Your task to perform on an android device: change timer sound Image 0: 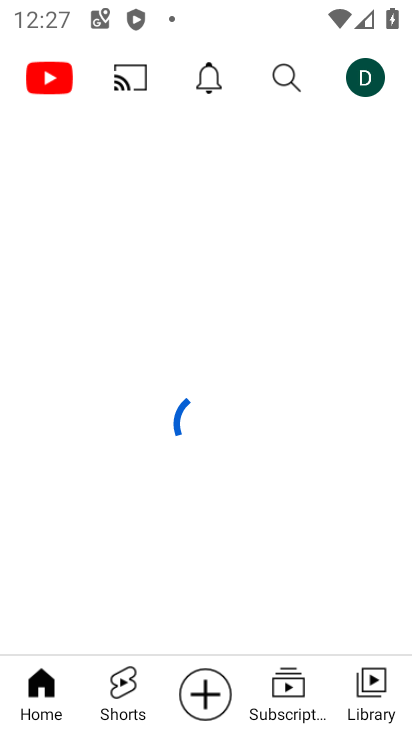
Step 0: drag from (300, 536) to (295, 364)
Your task to perform on an android device: change timer sound Image 1: 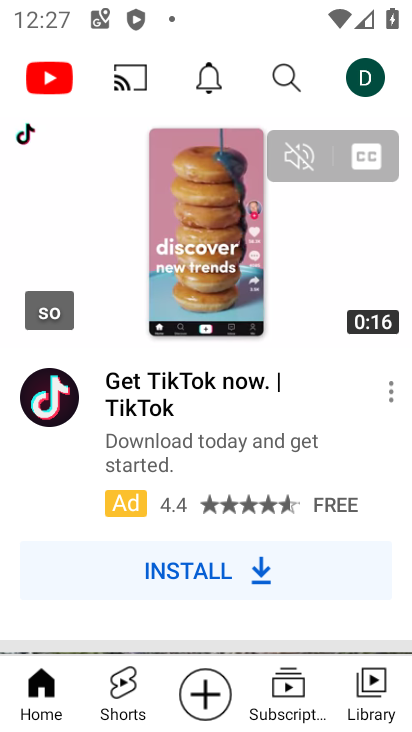
Step 1: press home button
Your task to perform on an android device: change timer sound Image 2: 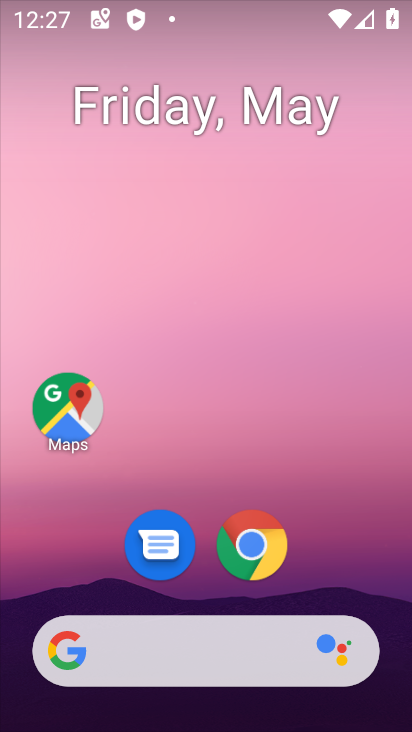
Step 2: drag from (345, 508) to (338, 162)
Your task to perform on an android device: change timer sound Image 3: 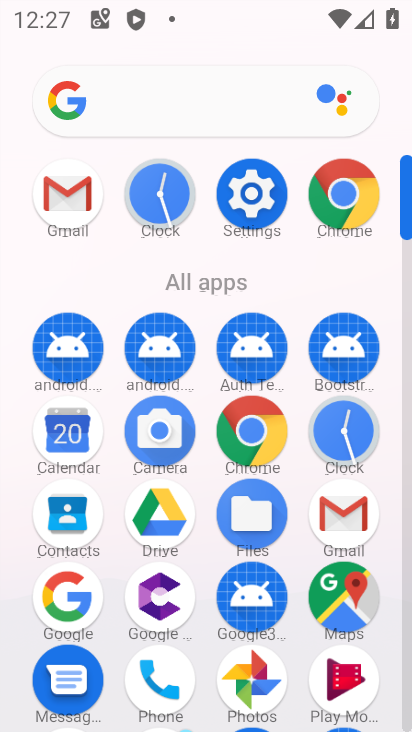
Step 3: click (164, 196)
Your task to perform on an android device: change timer sound Image 4: 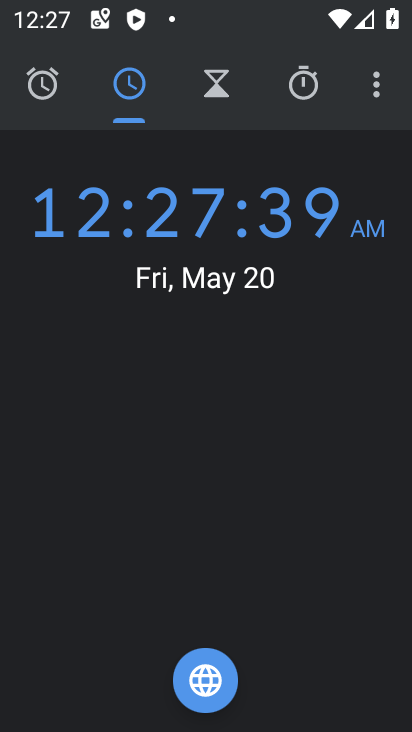
Step 4: click (373, 95)
Your task to perform on an android device: change timer sound Image 5: 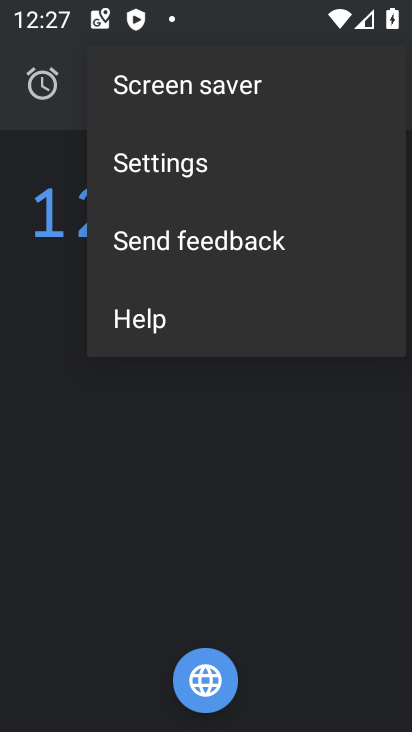
Step 5: click (313, 165)
Your task to perform on an android device: change timer sound Image 6: 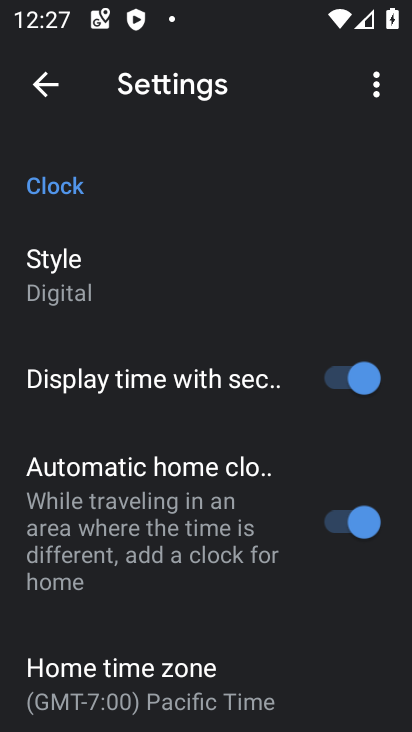
Step 6: drag from (110, 523) to (103, 241)
Your task to perform on an android device: change timer sound Image 7: 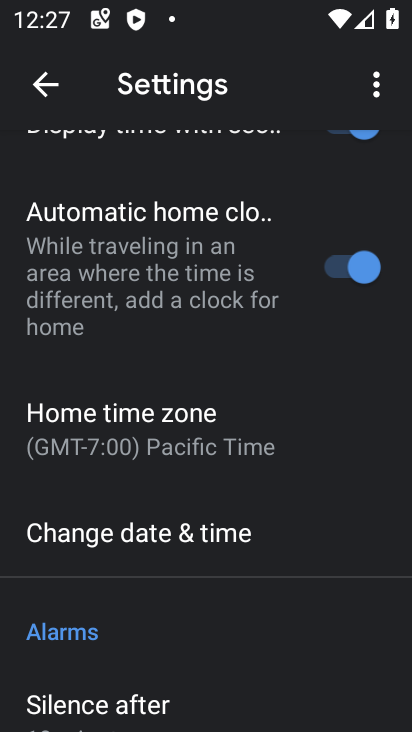
Step 7: drag from (269, 571) to (257, 275)
Your task to perform on an android device: change timer sound Image 8: 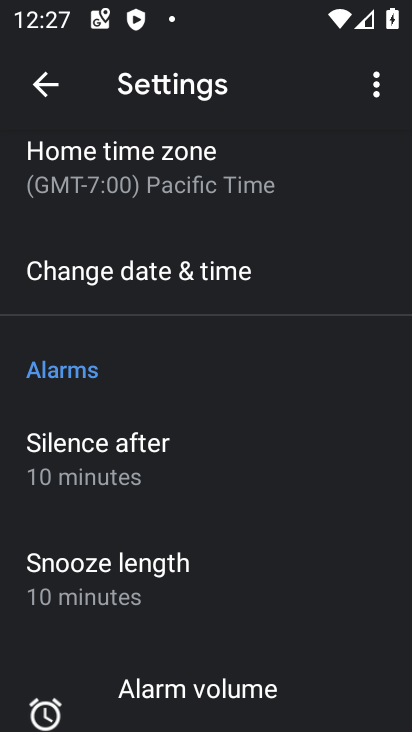
Step 8: drag from (264, 595) to (230, 316)
Your task to perform on an android device: change timer sound Image 9: 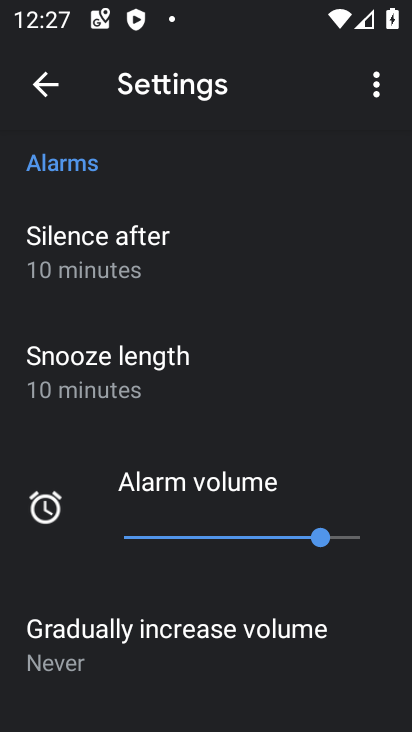
Step 9: drag from (279, 600) to (221, 300)
Your task to perform on an android device: change timer sound Image 10: 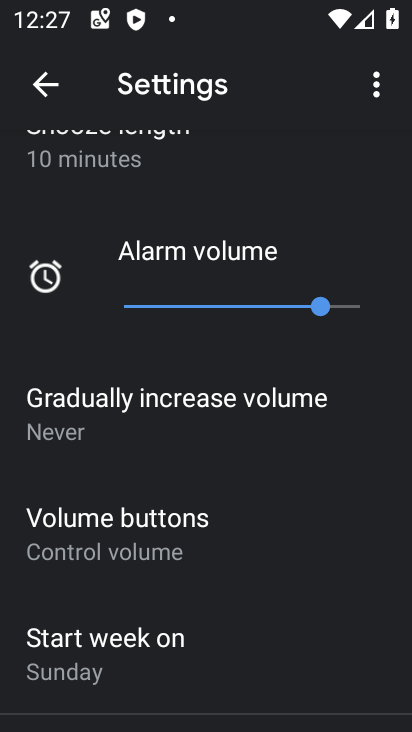
Step 10: drag from (226, 585) to (208, 231)
Your task to perform on an android device: change timer sound Image 11: 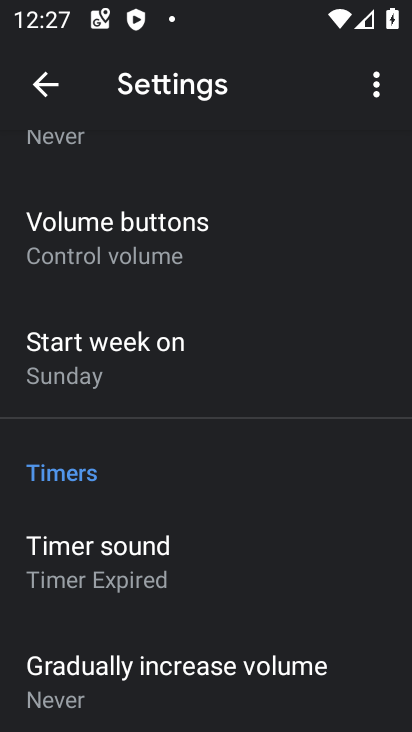
Step 11: click (220, 581)
Your task to perform on an android device: change timer sound Image 12: 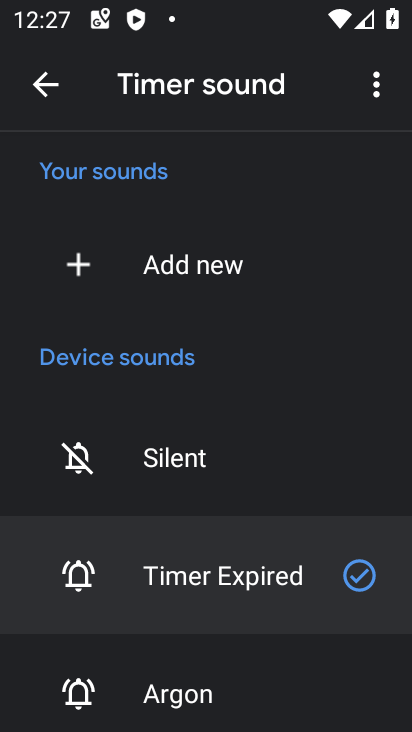
Step 12: click (232, 681)
Your task to perform on an android device: change timer sound Image 13: 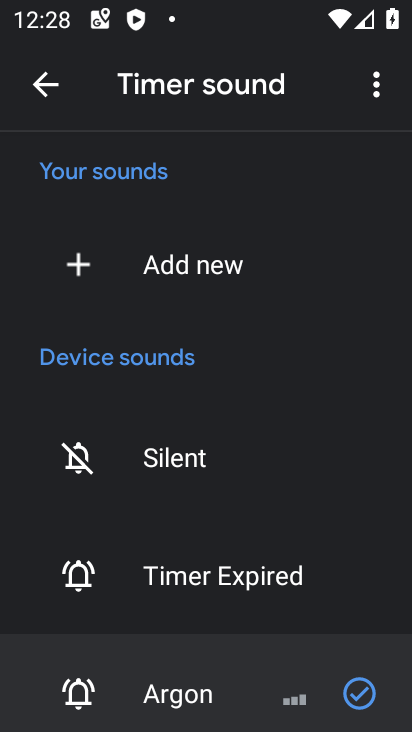
Step 13: task complete